Your task to perform on an android device: change alarm snooze length Image 0: 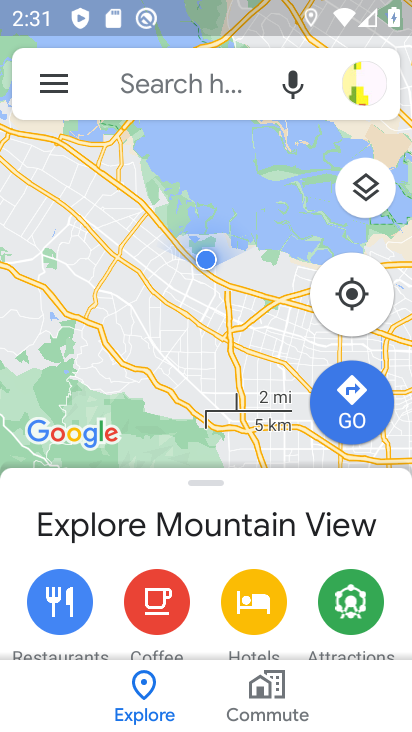
Step 0: press home button
Your task to perform on an android device: change alarm snooze length Image 1: 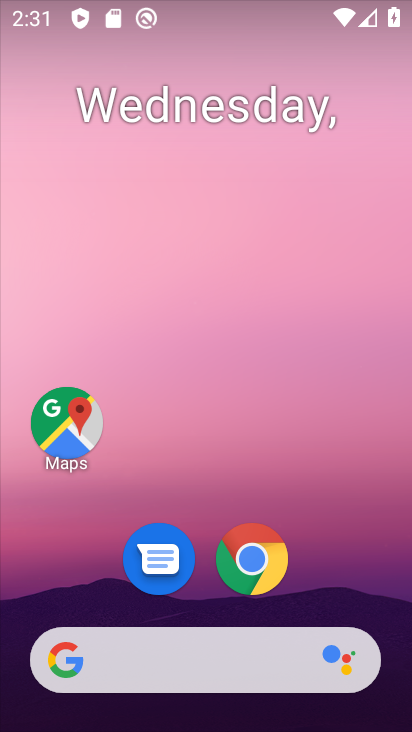
Step 1: drag from (363, 459) to (363, 148)
Your task to perform on an android device: change alarm snooze length Image 2: 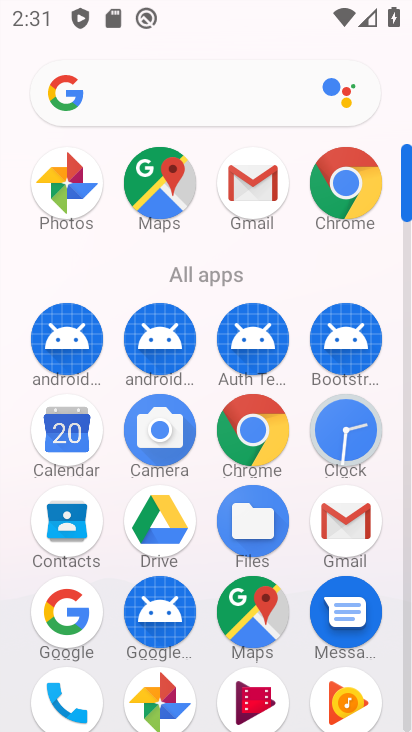
Step 2: click (333, 438)
Your task to perform on an android device: change alarm snooze length Image 3: 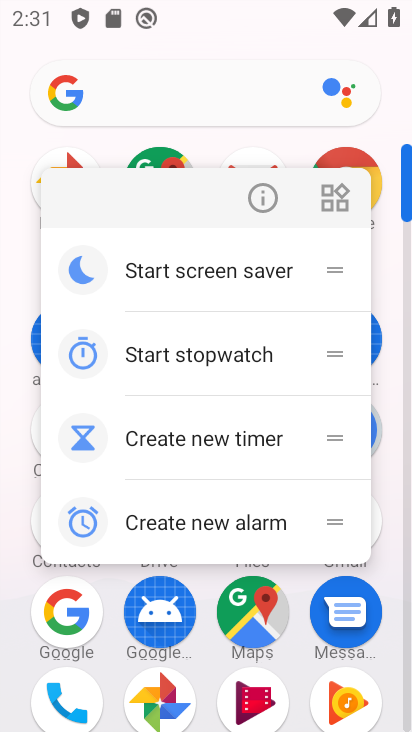
Step 3: click (377, 430)
Your task to perform on an android device: change alarm snooze length Image 4: 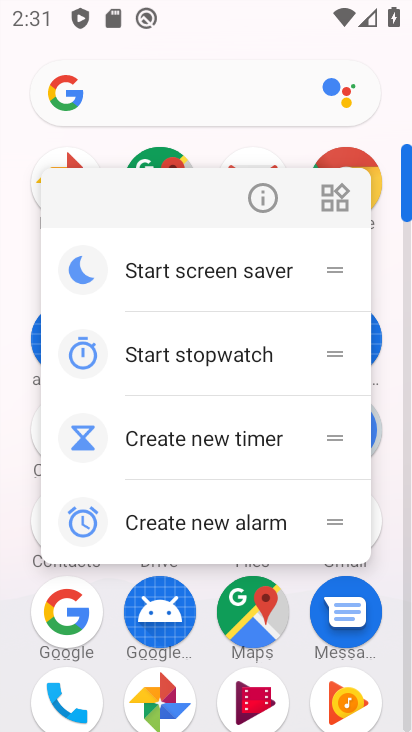
Step 4: click (373, 431)
Your task to perform on an android device: change alarm snooze length Image 5: 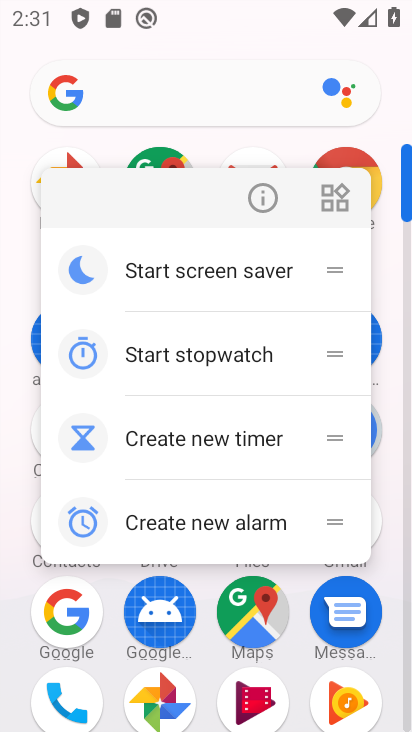
Step 5: click (376, 443)
Your task to perform on an android device: change alarm snooze length Image 6: 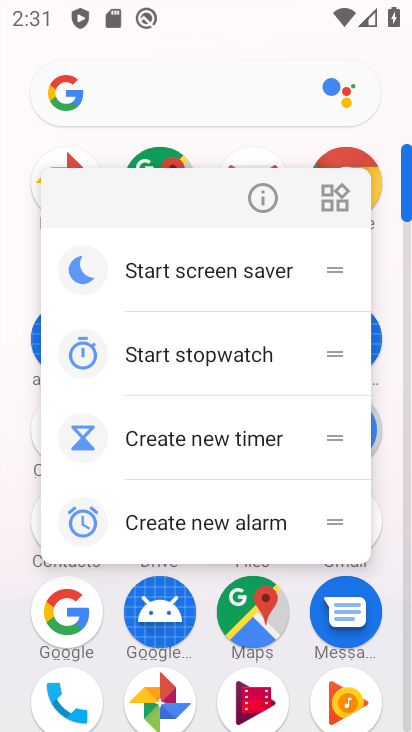
Step 6: click (376, 443)
Your task to perform on an android device: change alarm snooze length Image 7: 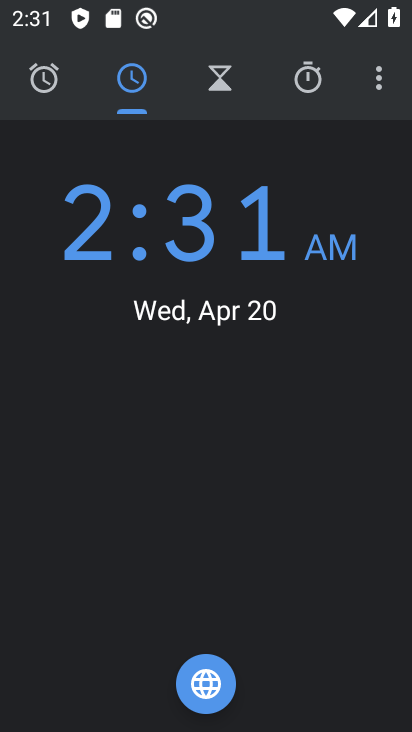
Step 7: click (370, 75)
Your task to perform on an android device: change alarm snooze length Image 8: 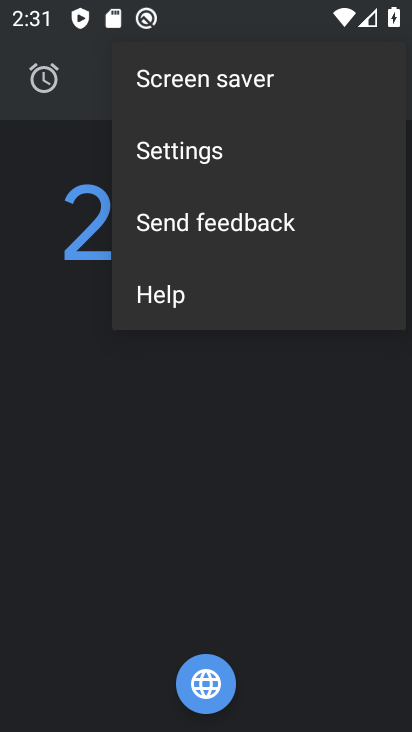
Step 8: click (214, 149)
Your task to perform on an android device: change alarm snooze length Image 9: 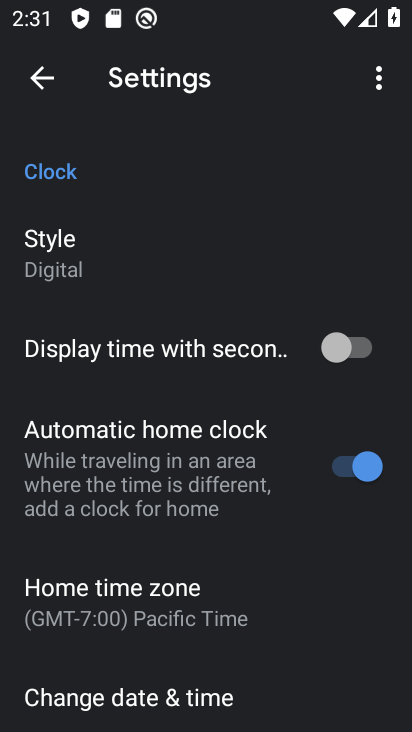
Step 9: drag from (251, 533) to (229, 220)
Your task to perform on an android device: change alarm snooze length Image 10: 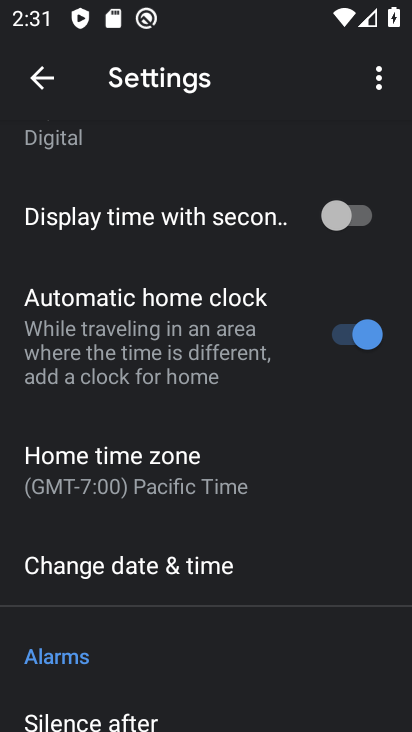
Step 10: drag from (172, 609) to (184, 298)
Your task to perform on an android device: change alarm snooze length Image 11: 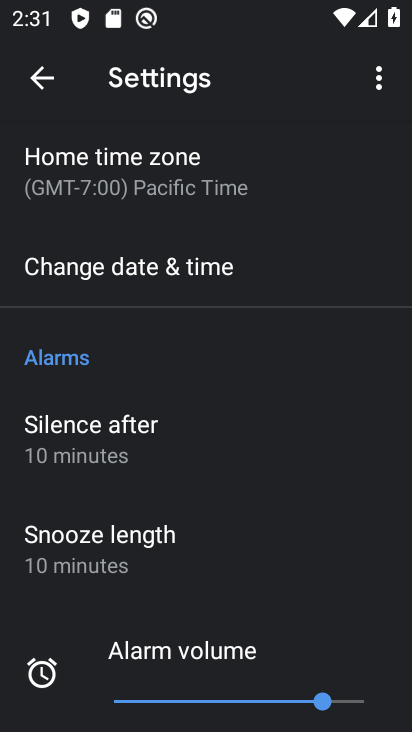
Step 11: click (120, 550)
Your task to perform on an android device: change alarm snooze length Image 12: 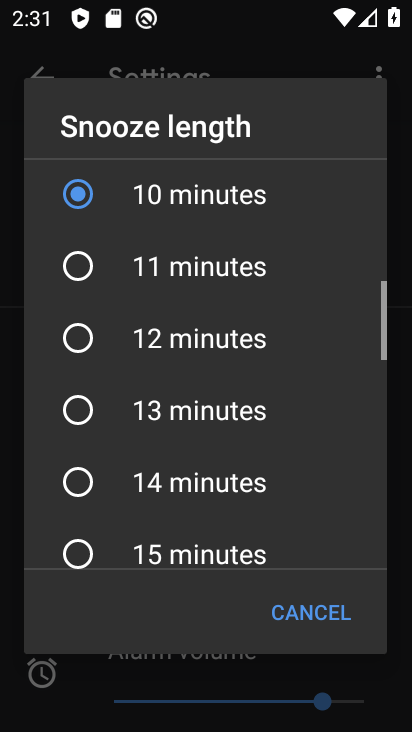
Step 12: click (121, 551)
Your task to perform on an android device: change alarm snooze length Image 13: 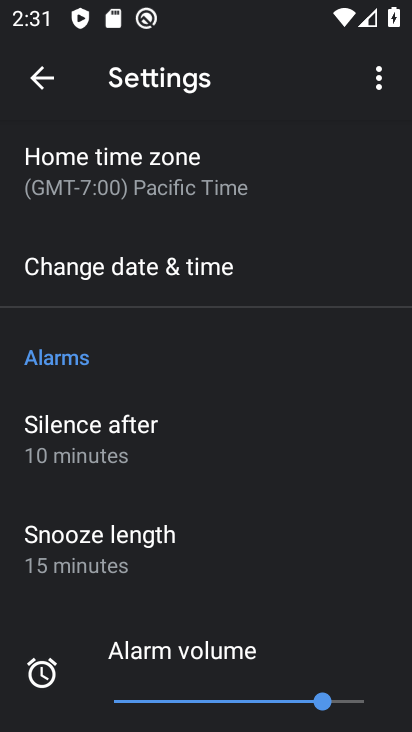
Step 13: task complete